Your task to perform on an android device: Go to settings Image 0: 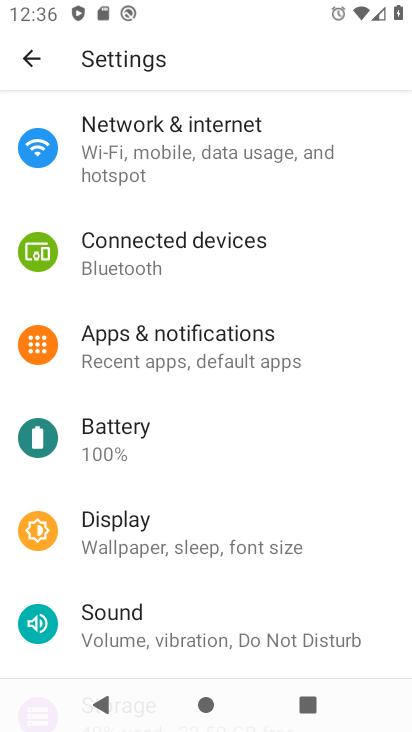
Step 0: task complete